Your task to perform on an android device: What's on my calendar today? Image 0: 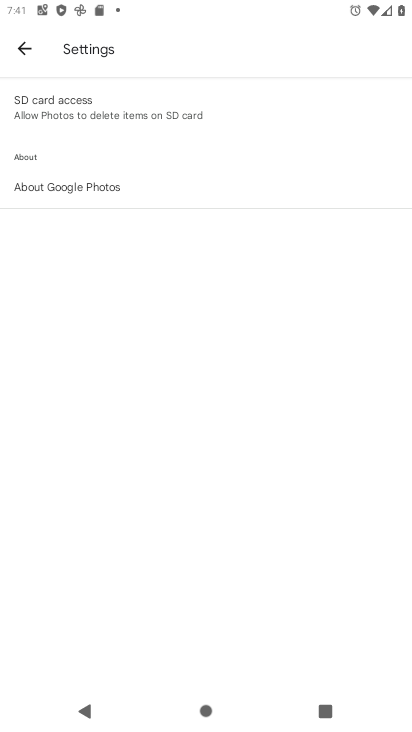
Step 0: drag from (345, 606) to (281, 89)
Your task to perform on an android device: What's on my calendar today? Image 1: 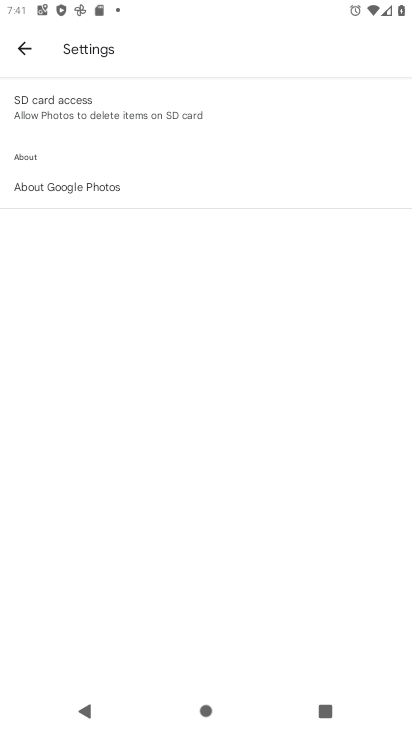
Step 1: press home button
Your task to perform on an android device: What's on my calendar today? Image 2: 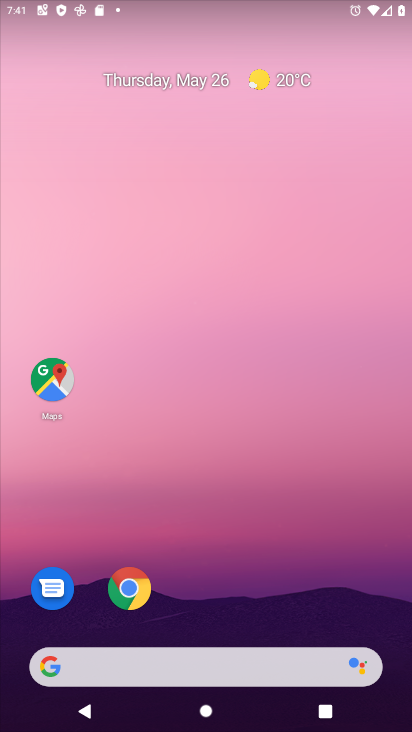
Step 2: drag from (356, 591) to (244, 52)
Your task to perform on an android device: What's on my calendar today? Image 3: 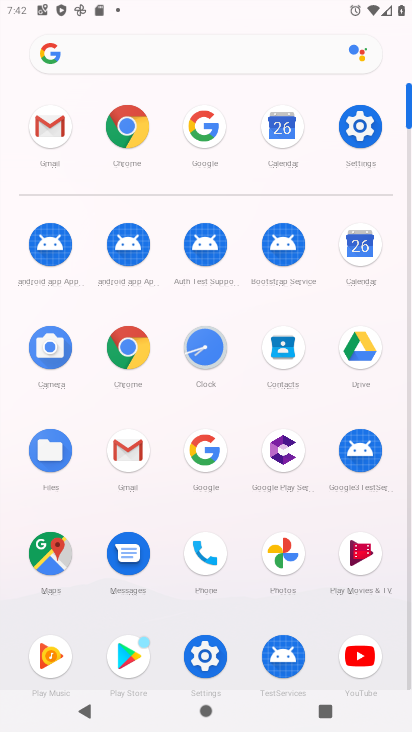
Step 3: click (357, 242)
Your task to perform on an android device: What's on my calendar today? Image 4: 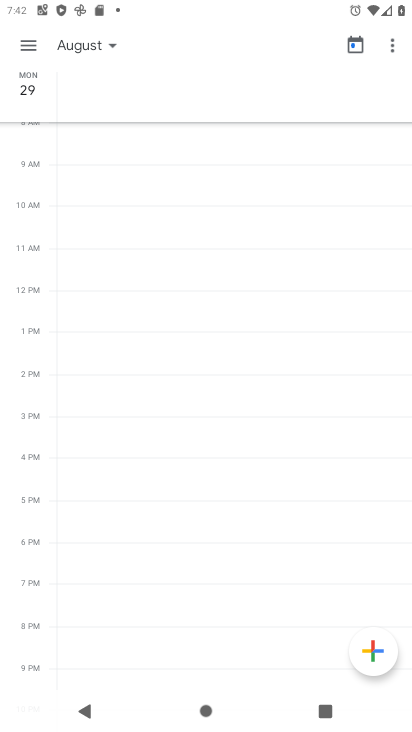
Step 4: task complete